Your task to perform on an android device: open a new tab in the chrome app Image 0: 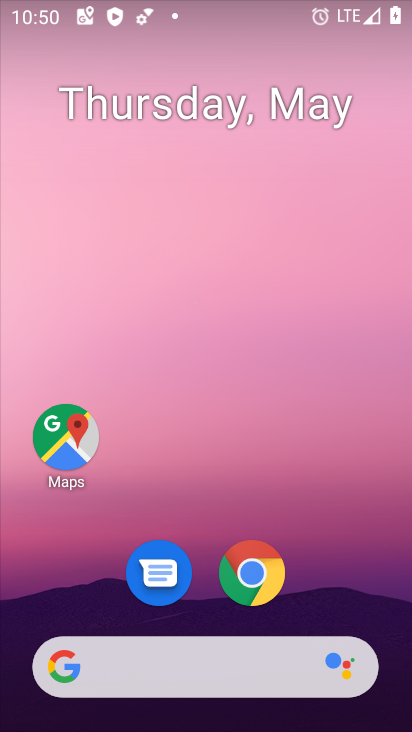
Step 0: click (244, 570)
Your task to perform on an android device: open a new tab in the chrome app Image 1: 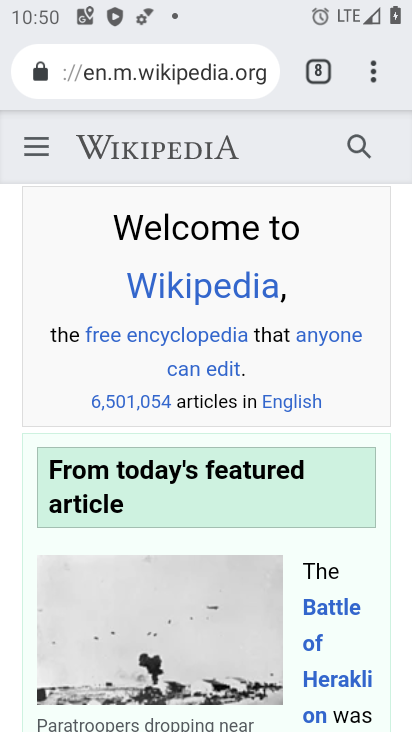
Step 1: click (321, 68)
Your task to perform on an android device: open a new tab in the chrome app Image 2: 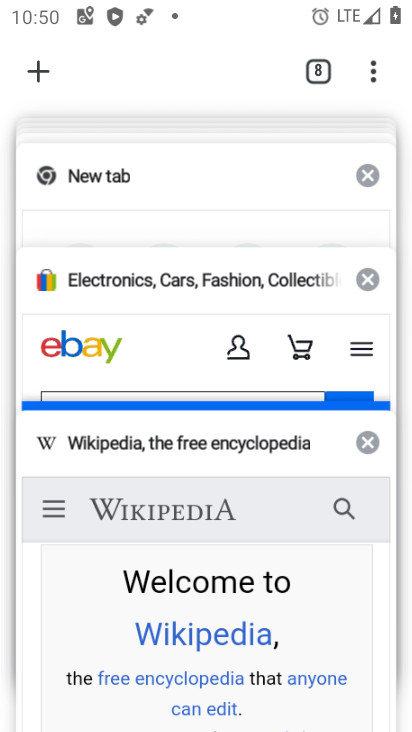
Step 2: click (44, 66)
Your task to perform on an android device: open a new tab in the chrome app Image 3: 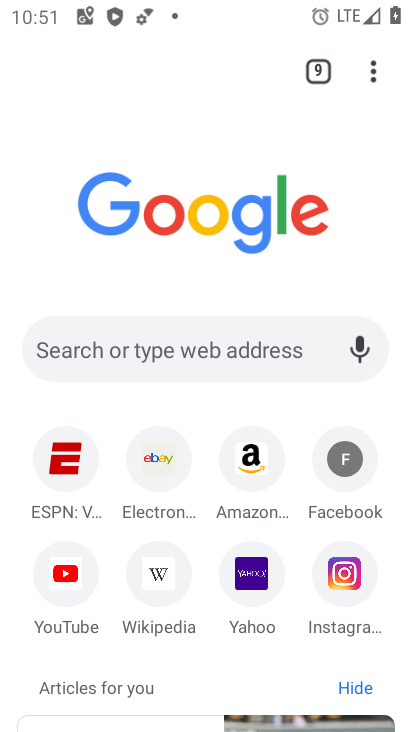
Step 3: task complete